Your task to perform on an android device: Go to eBay Image 0: 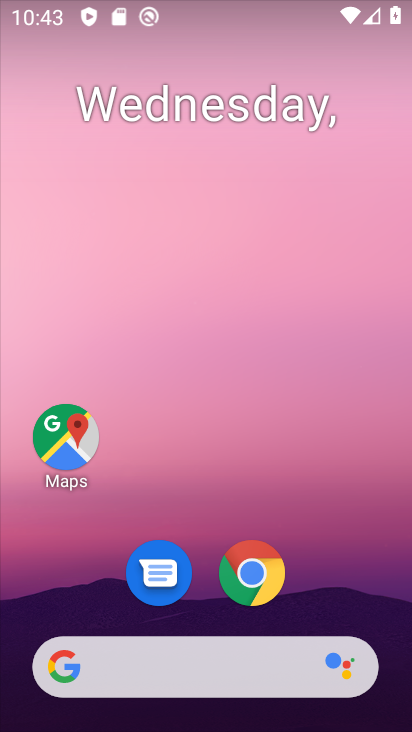
Step 0: click (262, 573)
Your task to perform on an android device: Go to eBay Image 1: 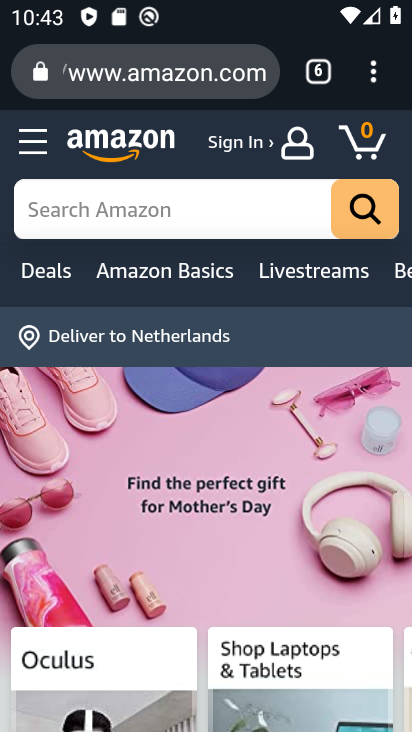
Step 1: click (264, 70)
Your task to perform on an android device: Go to eBay Image 2: 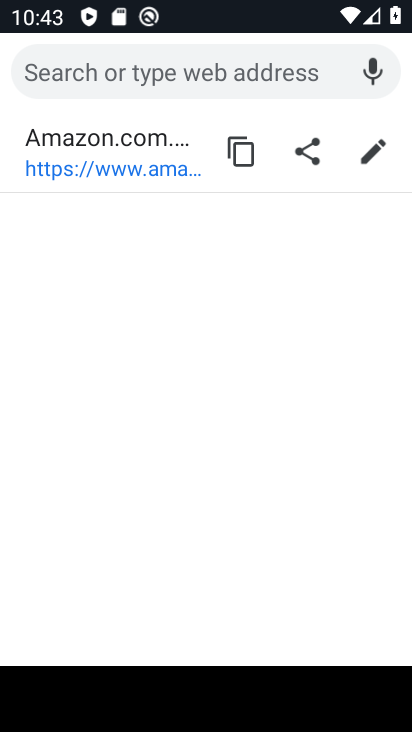
Step 2: type "eBay"
Your task to perform on an android device: Go to eBay Image 3: 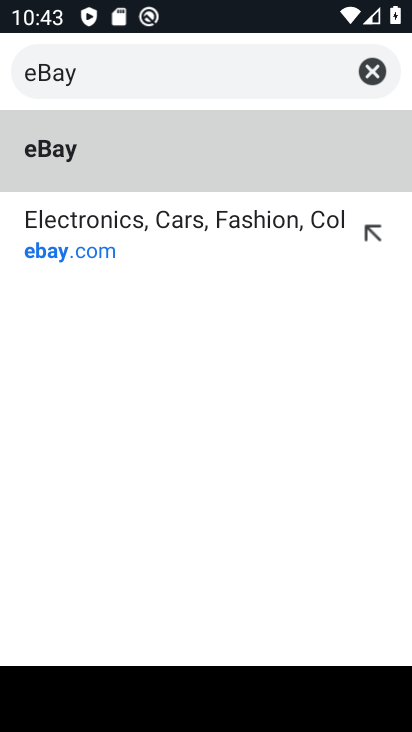
Step 3: click (71, 257)
Your task to perform on an android device: Go to eBay Image 4: 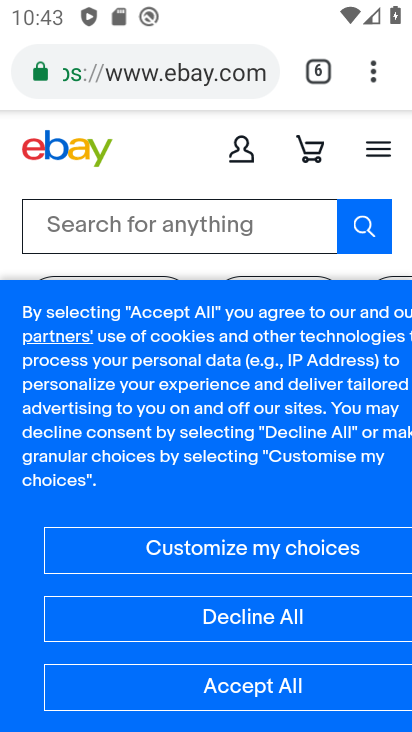
Step 4: task complete